Your task to perform on an android device: Empty the shopping cart on costco. Add "alienware area 51" to the cart on costco Image 0: 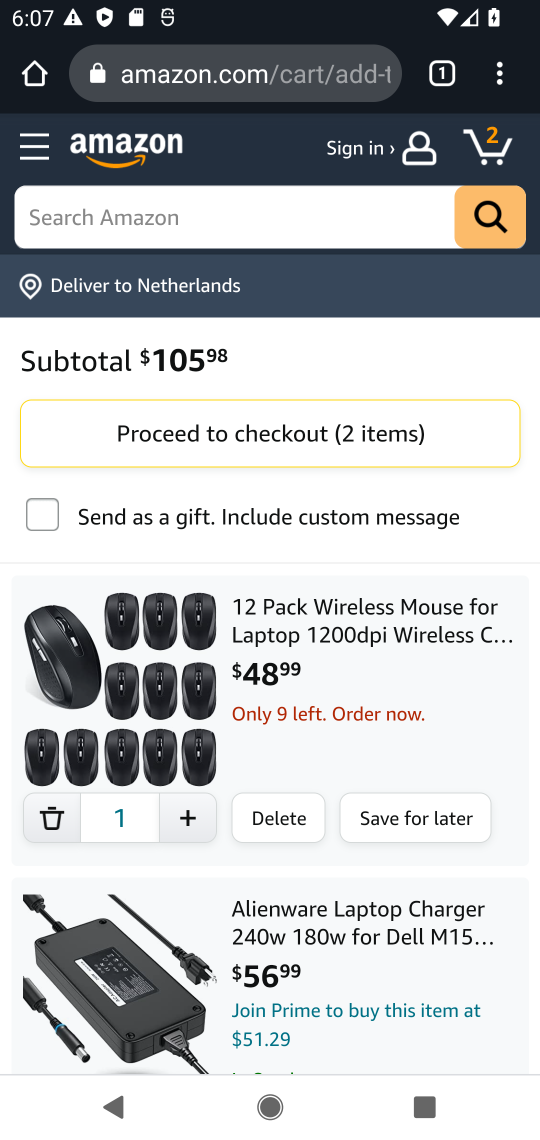
Step 0: click (167, 215)
Your task to perform on an android device: Empty the shopping cart on costco. Add "alienware area 51" to the cart on costco Image 1: 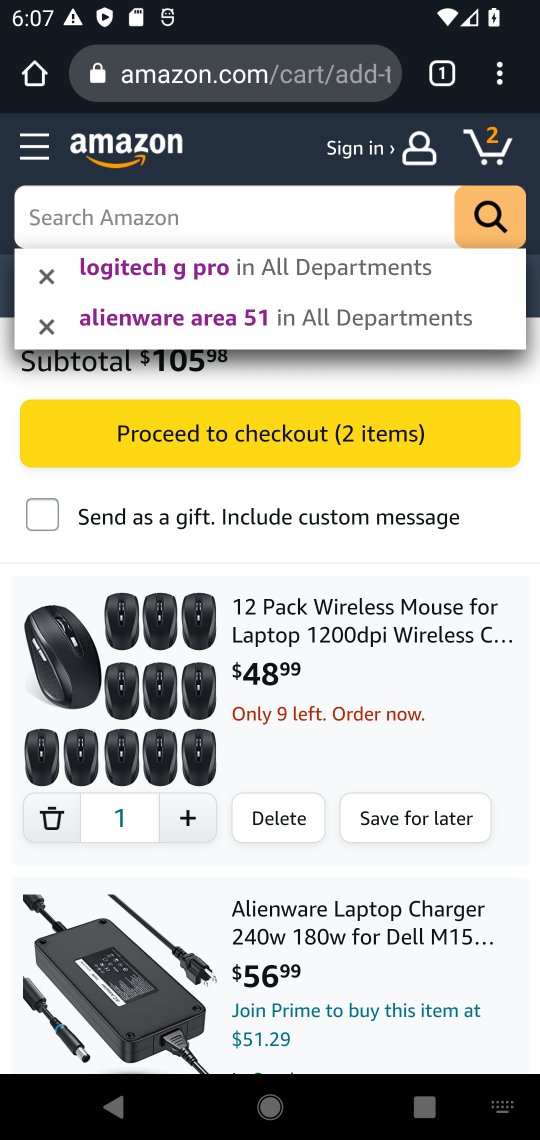
Step 1: task complete